Your task to perform on an android device: add a contact in the contacts app Image 0: 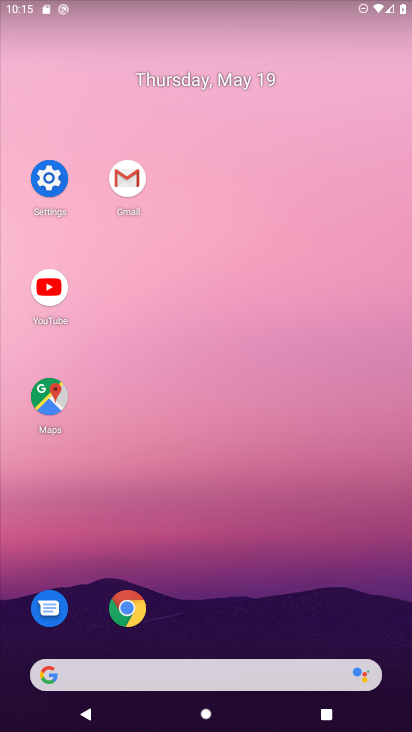
Step 0: drag from (233, 588) to (295, 170)
Your task to perform on an android device: add a contact in the contacts app Image 1: 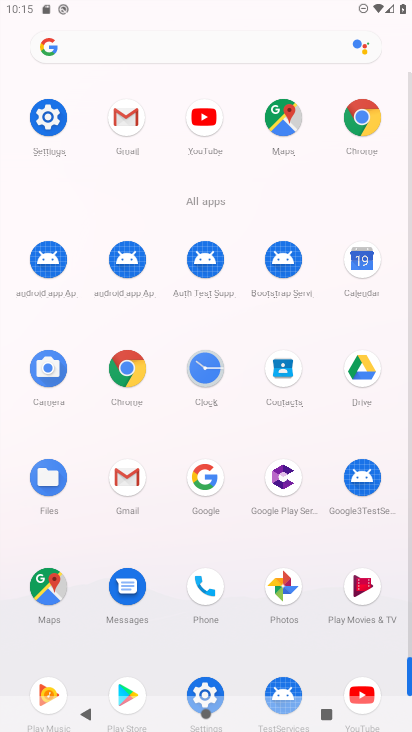
Step 1: drag from (195, 543) to (208, 258)
Your task to perform on an android device: add a contact in the contacts app Image 2: 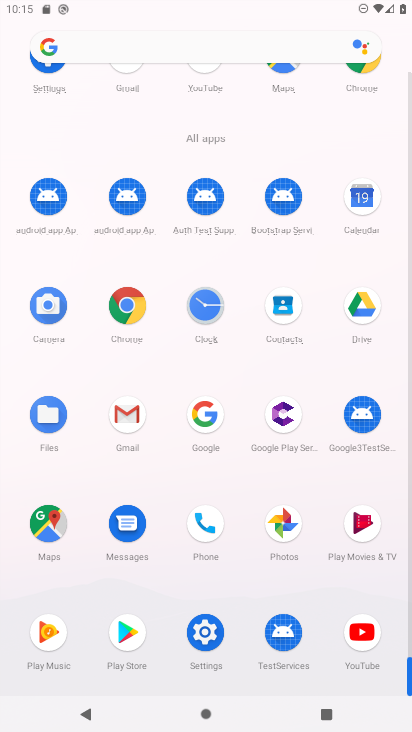
Step 2: click (283, 315)
Your task to perform on an android device: add a contact in the contacts app Image 3: 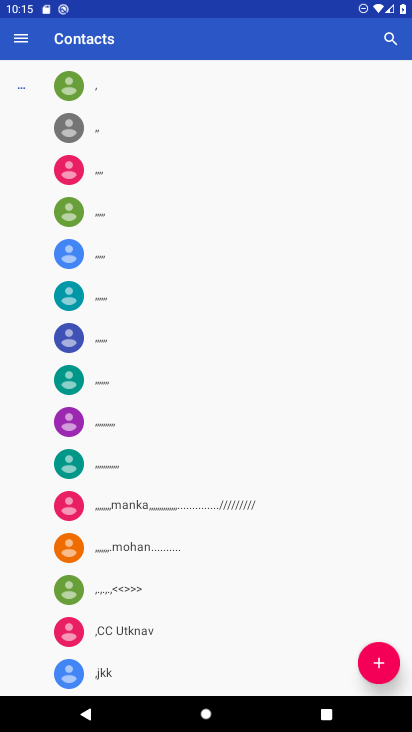
Step 3: click (381, 667)
Your task to perform on an android device: add a contact in the contacts app Image 4: 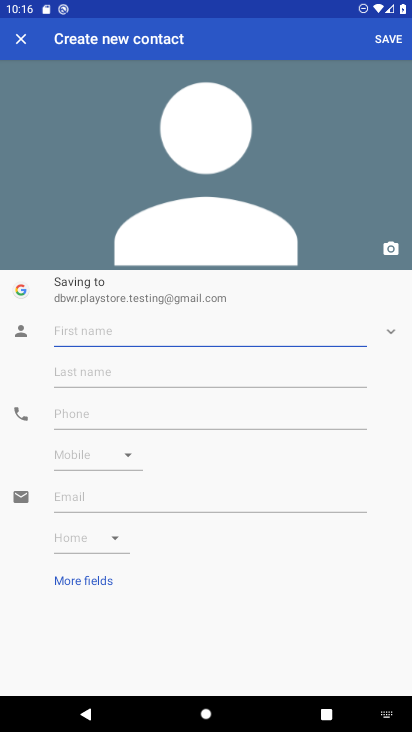
Step 4: type "abv"
Your task to perform on an android device: add a contact in the contacts app Image 5: 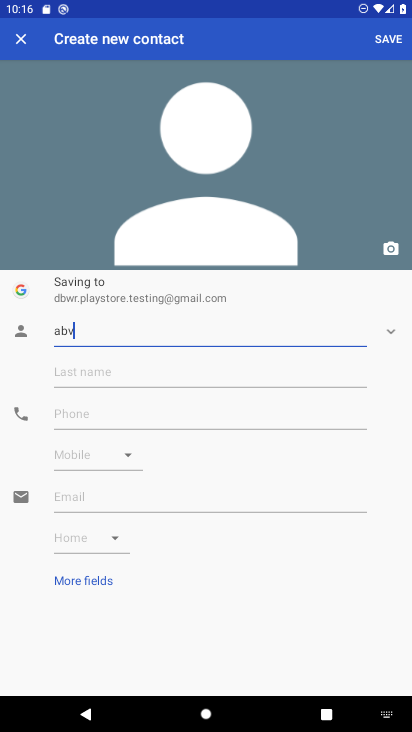
Step 5: click (117, 411)
Your task to perform on an android device: add a contact in the contacts app Image 6: 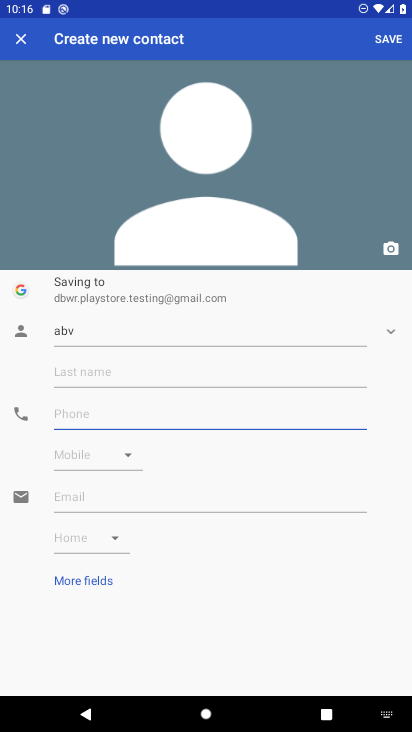
Step 6: type "0099887756"
Your task to perform on an android device: add a contact in the contacts app Image 7: 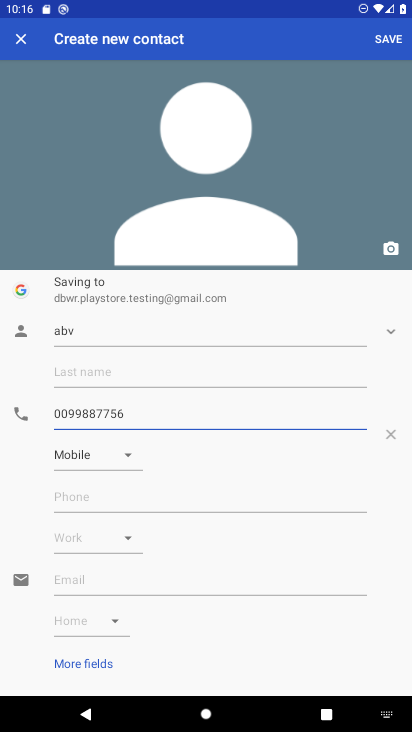
Step 7: click (396, 39)
Your task to perform on an android device: add a contact in the contacts app Image 8: 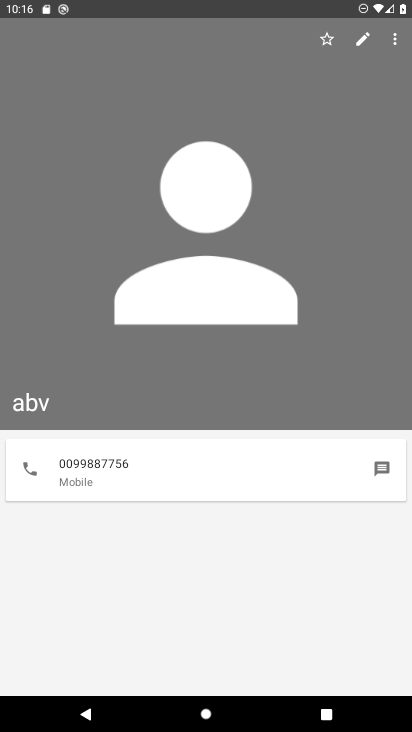
Step 8: task complete